Your task to perform on an android device: show emergency info Image 0: 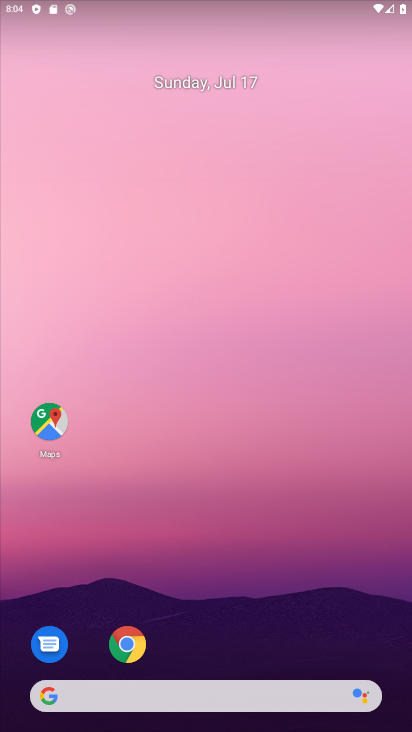
Step 0: drag from (278, 577) to (314, 178)
Your task to perform on an android device: show emergency info Image 1: 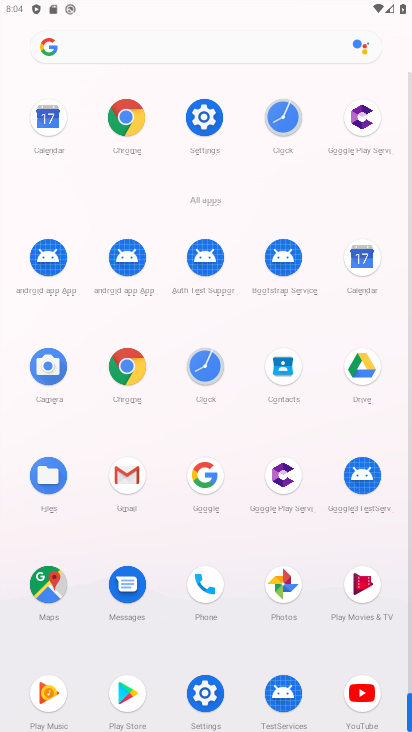
Step 1: click (193, 127)
Your task to perform on an android device: show emergency info Image 2: 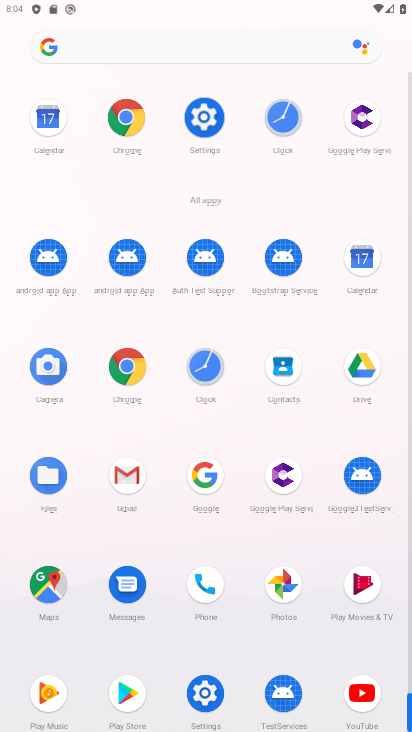
Step 2: click (204, 122)
Your task to perform on an android device: show emergency info Image 3: 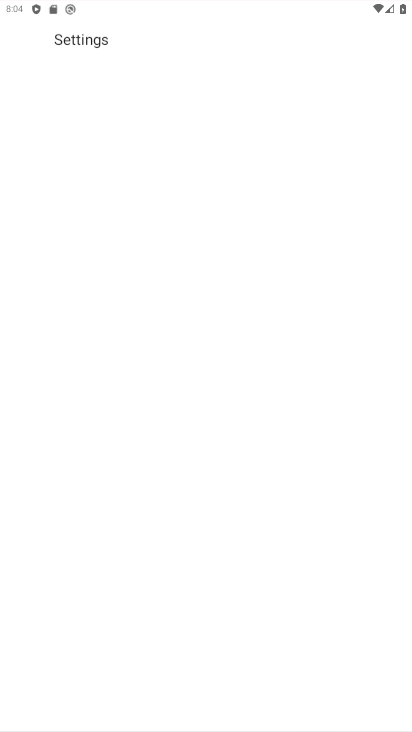
Step 3: click (209, 122)
Your task to perform on an android device: show emergency info Image 4: 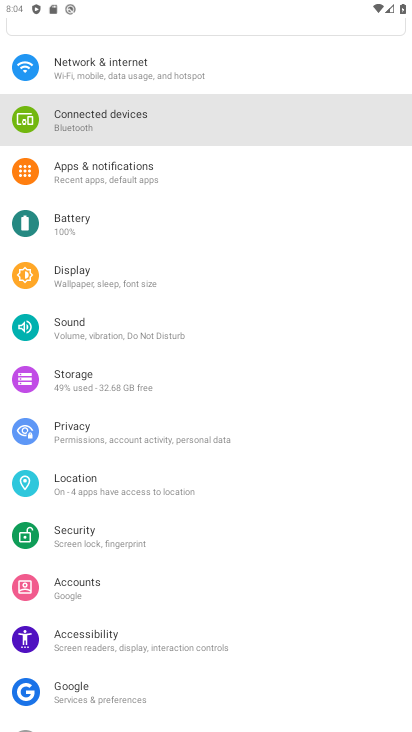
Step 4: drag from (119, 617) to (147, 163)
Your task to perform on an android device: show emergency info Image 5: 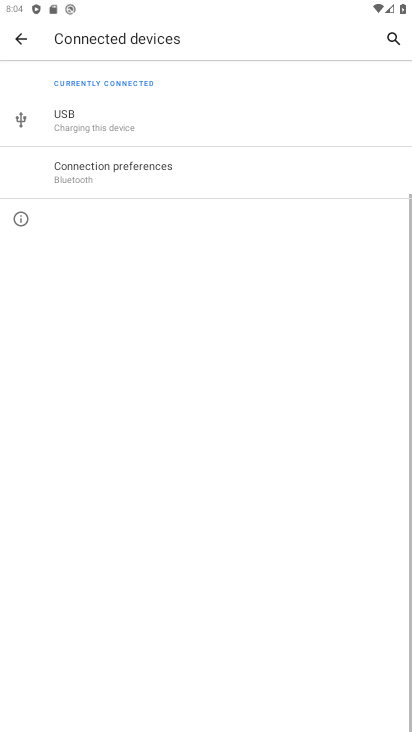
Step 5: drag from (148, 302) to (151, 110)
Your task to perform on an android device: show emergency info Image 6: 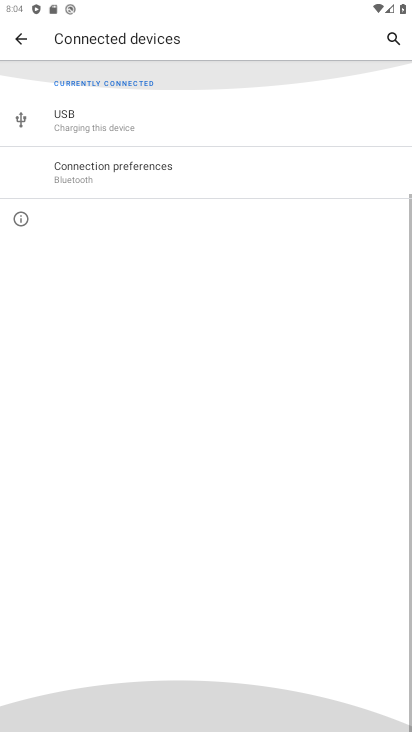
Step 6: drag from (134, 543) to (106, 164)
Your task to perform on an android device: show emergency info Image 7: 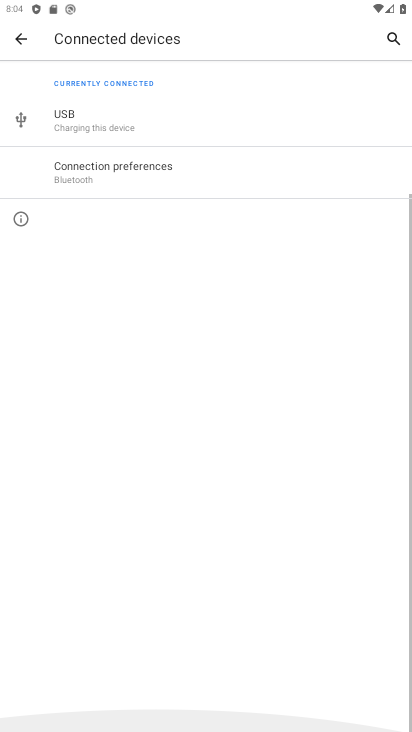
Step 7: click (23, 38)
Your task to perform on an android device: show emergency info Image 8: 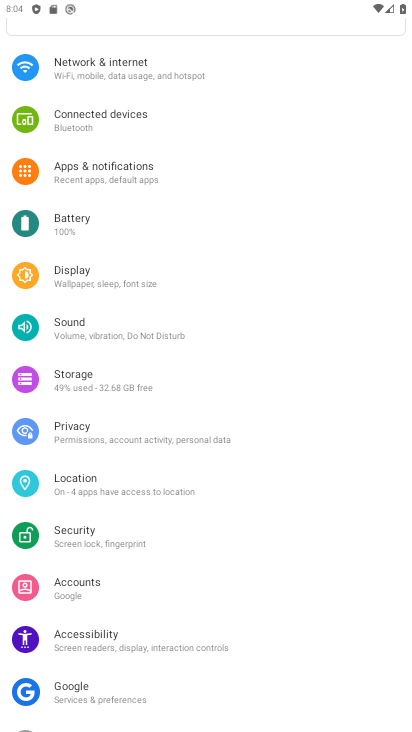
Step 8: drag from (124, 669) to (108, 244)
Your task to perform on an android device: show emergency info Image 9: 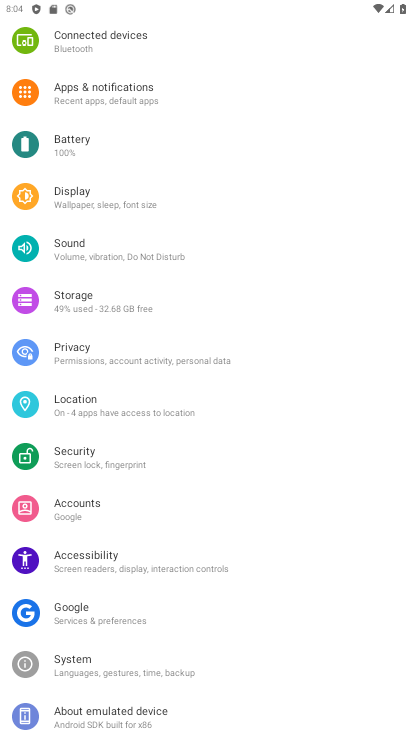
Step 9: click (105, 717)
Your task to perform on an android device: show emergency info Image 10: 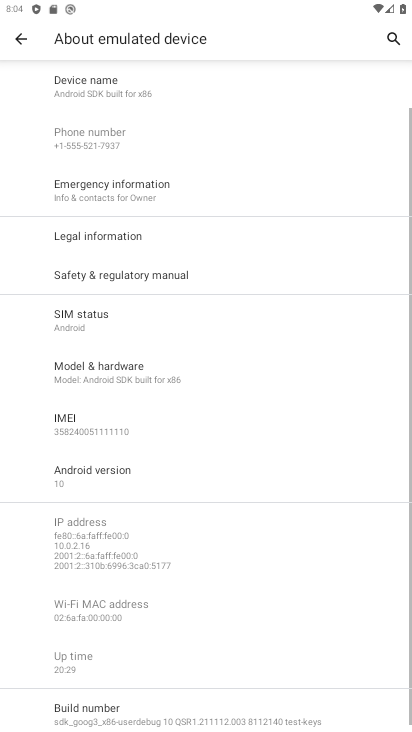
Step 10: click (99, 188)
Your task to perform on an android device: show emergency info Image 11: 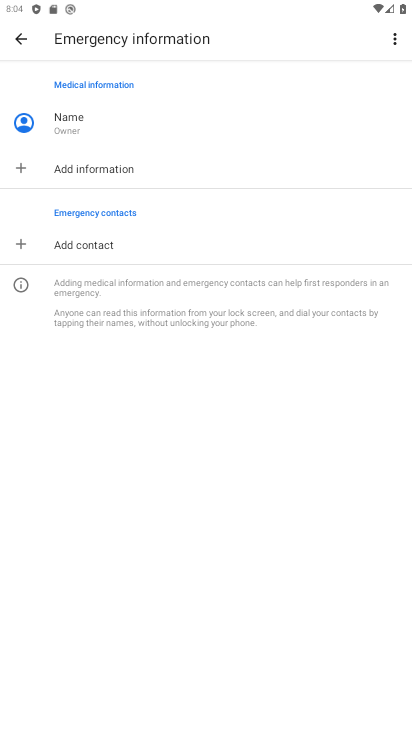
Step 11: task complete